Your task to perform on an android device: toggle notification dots Image 0: 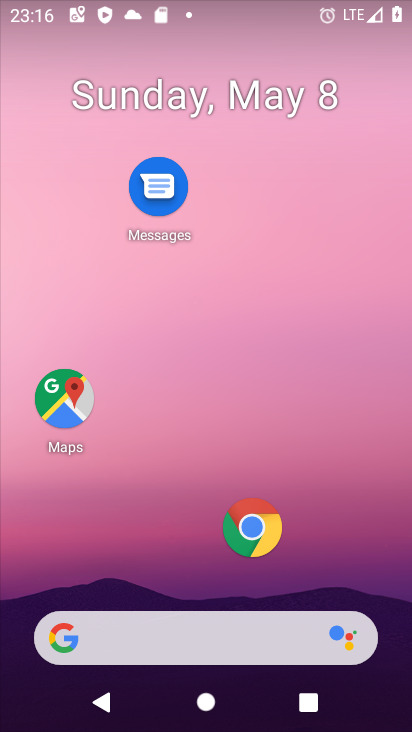
Step 0: drag from (180, 578) to (191, 90)
Your task to perform on an android device: toggle notification dots Image 1: 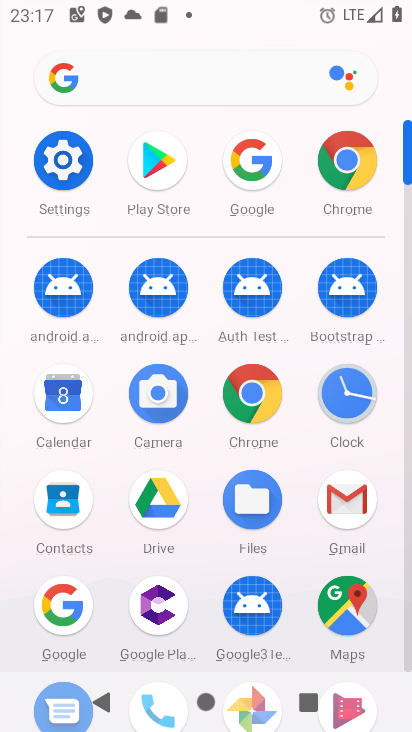
Step 1: click (66, 159)
Your task to perform on an android device: toggle notification dots Image 2: 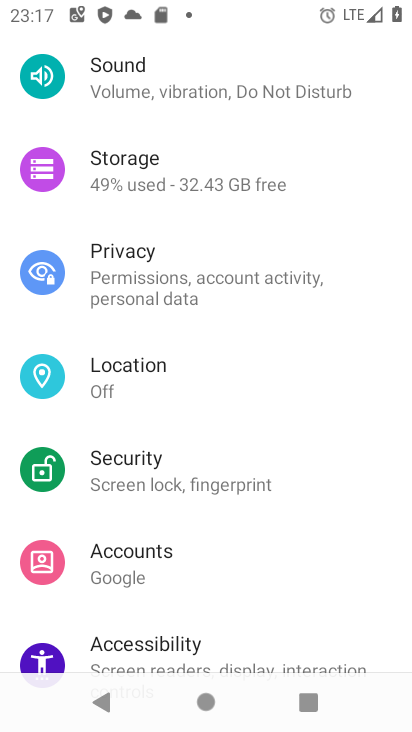
Step 2: drag from (233, 186) to (239, 259)
Your task to perform on an android device: toggle notification dots Image 3: 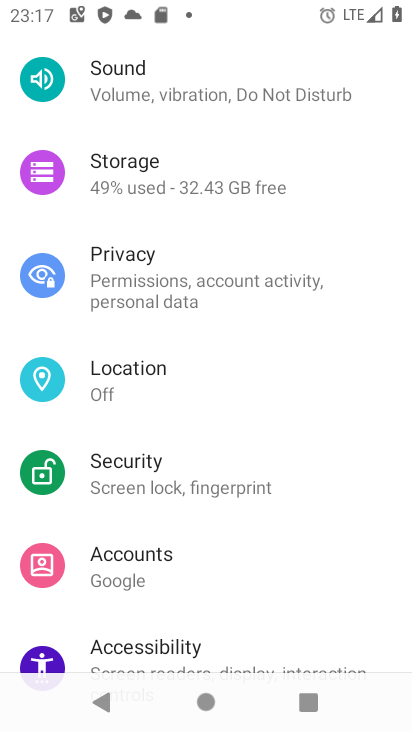
Step 3: drag from (239, 256) to (231, 641)
Your task to perform on an android device: toggle notification dots Image 4: 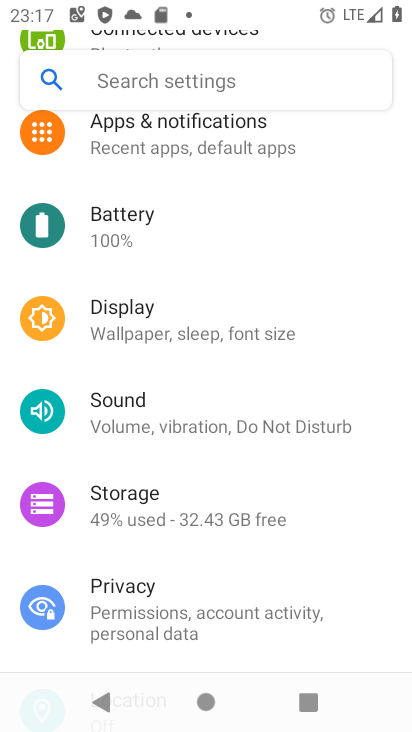
Step 4: click (131, 137)
Your task to perform on an android device: toggle notification dots Image 5: 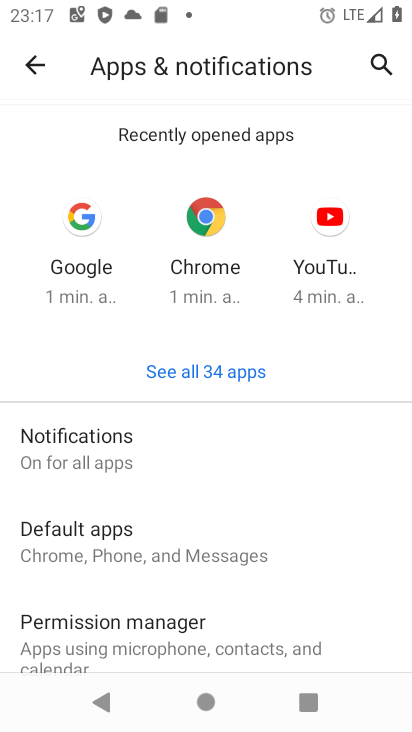
Step 5: click (114, 456)
Your task to perform on an android device: toggle notification dots Image 6: 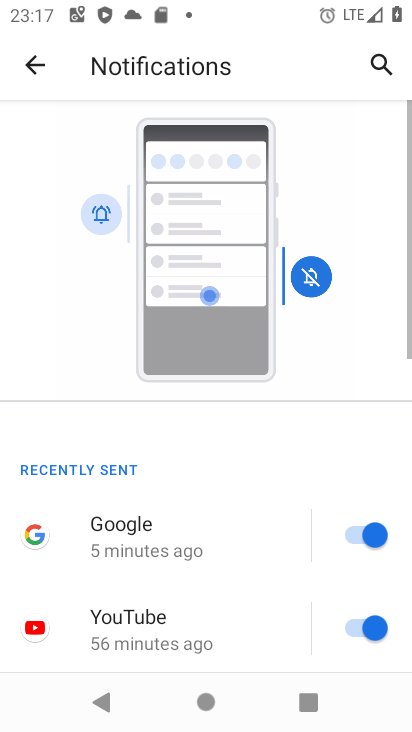
Step 6: drag from (194, 622) to (280, 34)
Your task to perform on an android device: toggle notification dots Image 7: 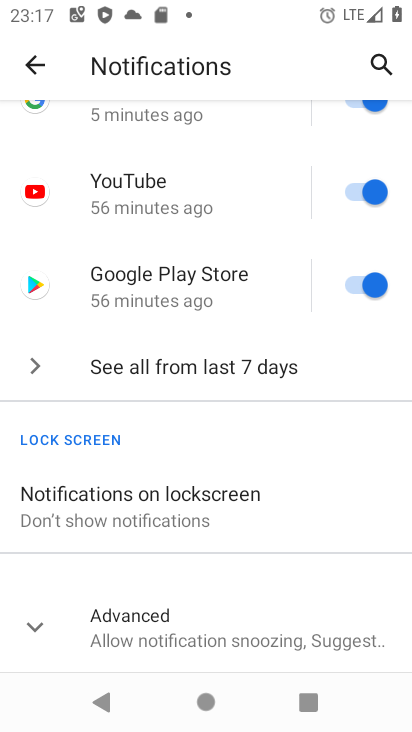
Step 7: click (166, 631)
Your task to perform on an android device: toggle notification dots Image 8: 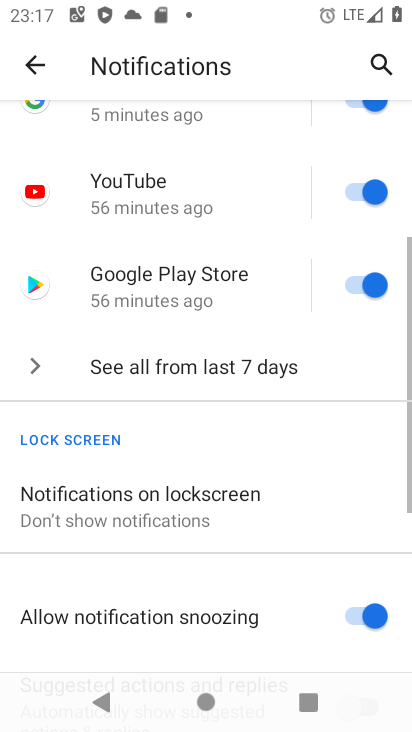
Step 8: drag from (226, 585) to (339, 123)
Your task to perform on an android device: toggle notification dots Image 9: 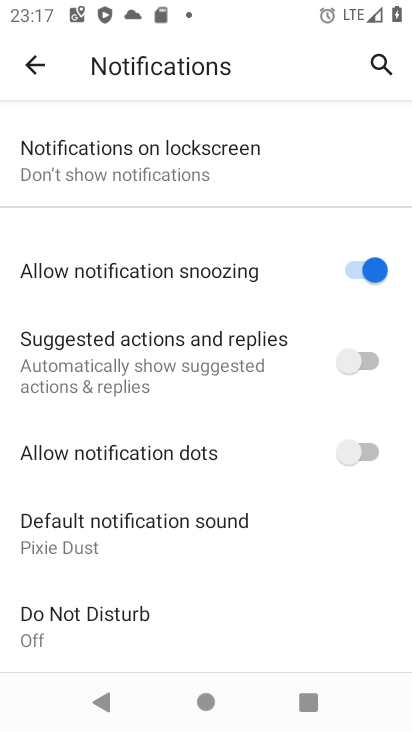
Step 9: click (354, 452)
Your task to perform on an android device: toggle notification dots Image 10: 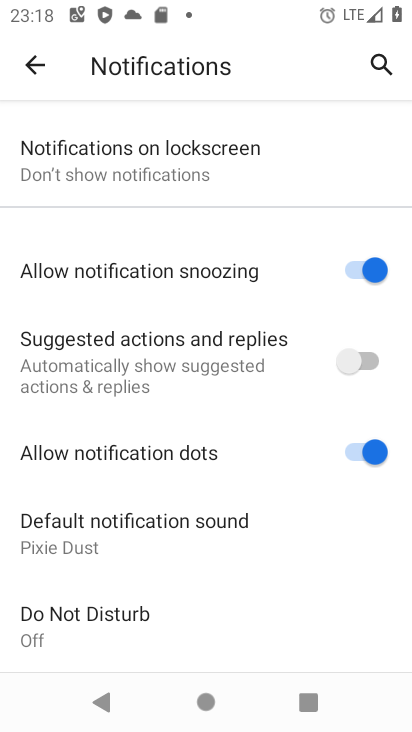
Step 10: task complete